Your task to perform on an android device: open app "Google Pay: Save, Pay, Manage" Image 0: 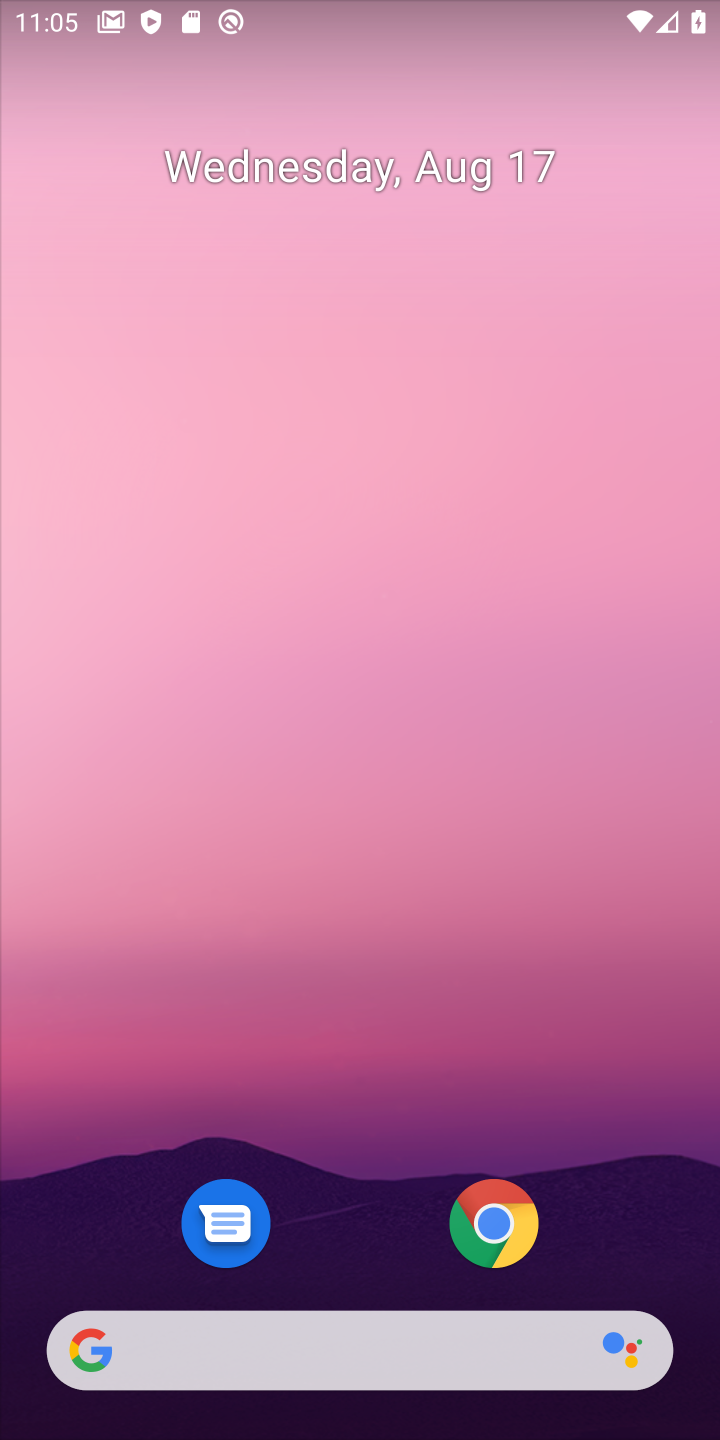
Step 0: drag from (419, 1203) to (353, 62)
Your task to perform on an android device: open app "Google Pay: Save, Pay, Manage" Image 1: 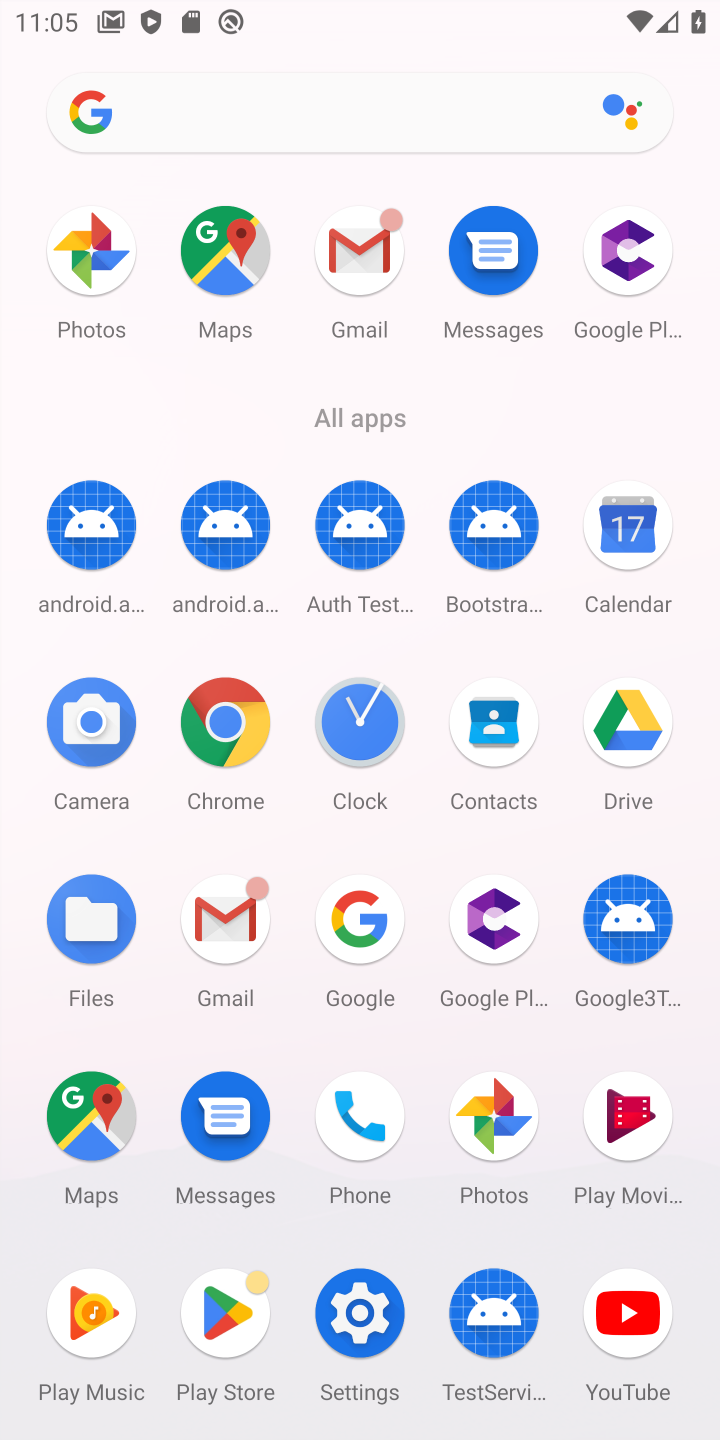
Step 1: click (235, 1295)
Your task to perform on an android device: open app "Google Pay: Save, Pay, Manage" Image 2: 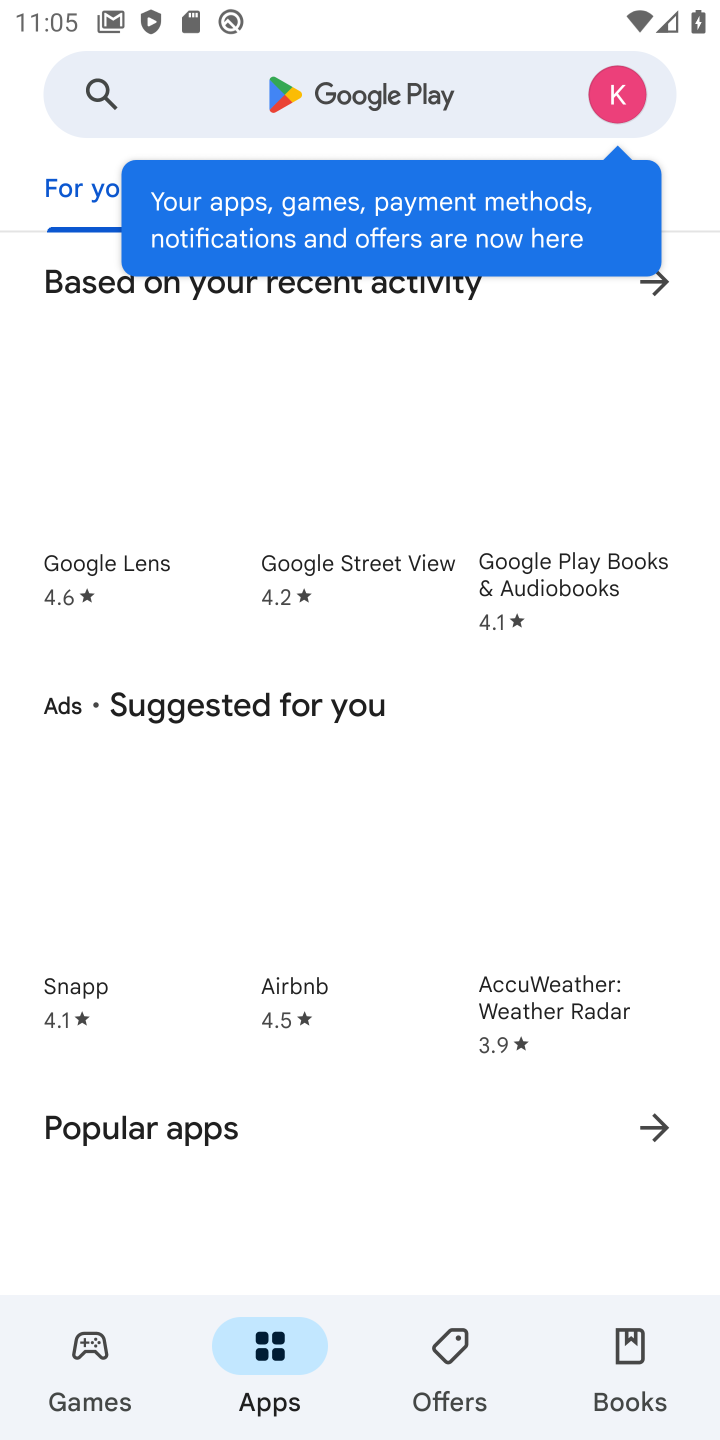
Step 2: click (475, 81)
Your task to perform on an android device: open app "Google Pay: Save, Pay, Manage" Image 3: 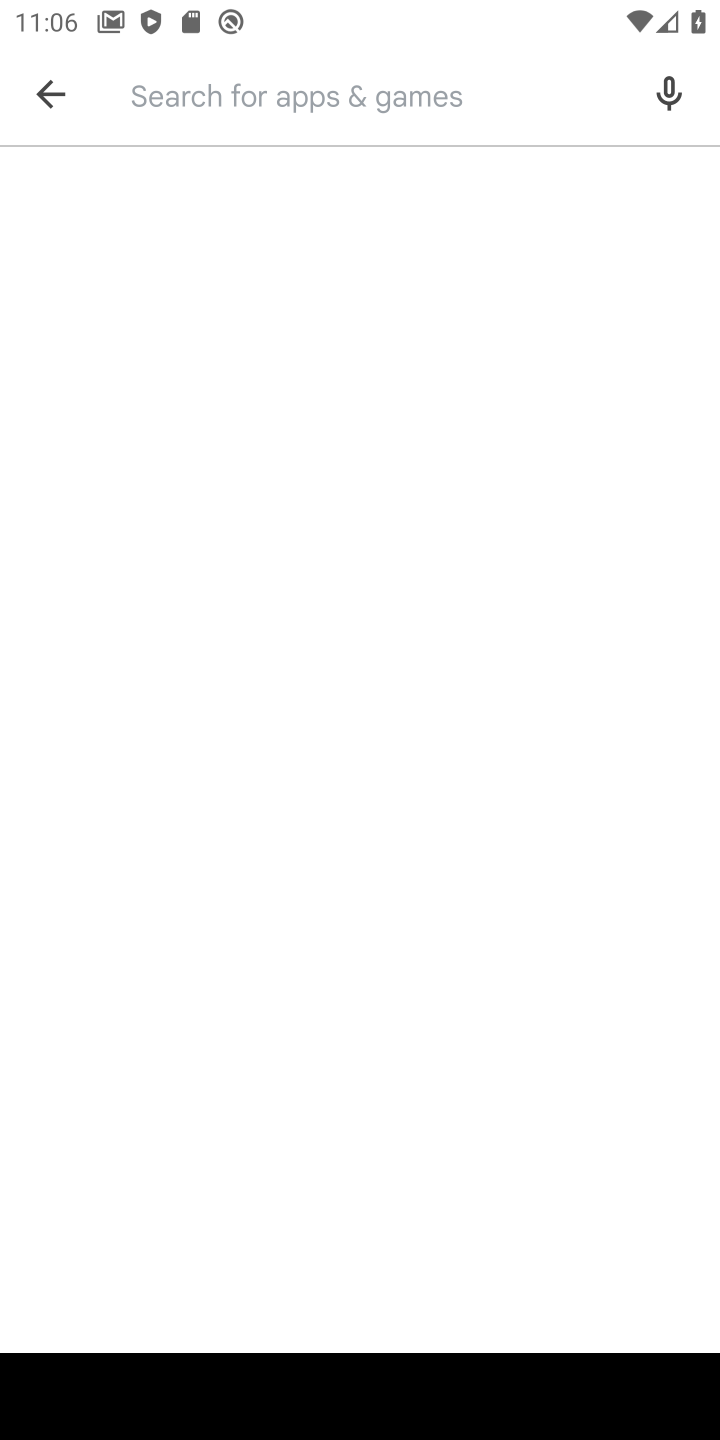
Step 3: type "Google Pay: Save, Pay, Manage"
Your task to perform on an android device: open app "Google Pay: Save, Pay, Manage" Image 4: 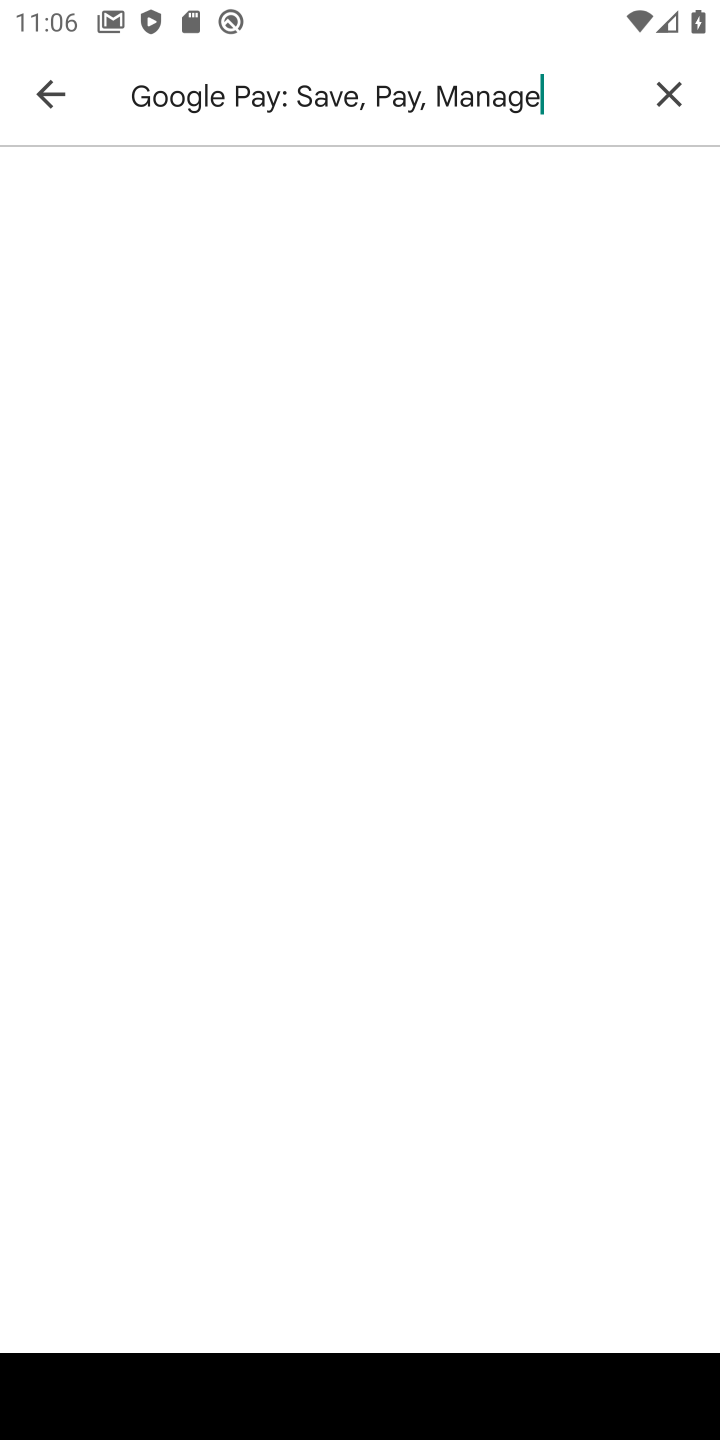
Step 4: type ""
Your task to perform on an android device: open app "Google Pay: Save, Pay, Manage" Image 5: 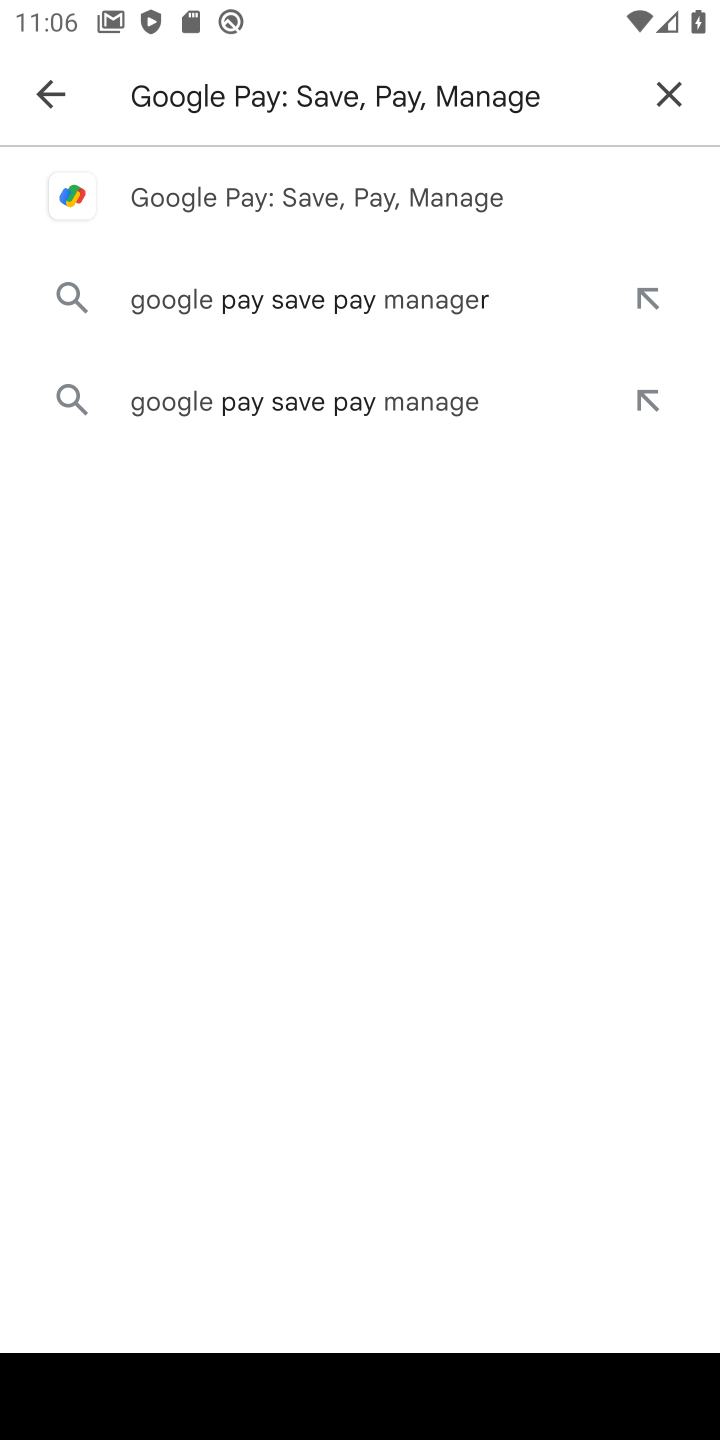
Step 5: click (362, 195)
Your task to perform on an android device: open app "Google Pay: Save, Pay, Manage" Image 6: 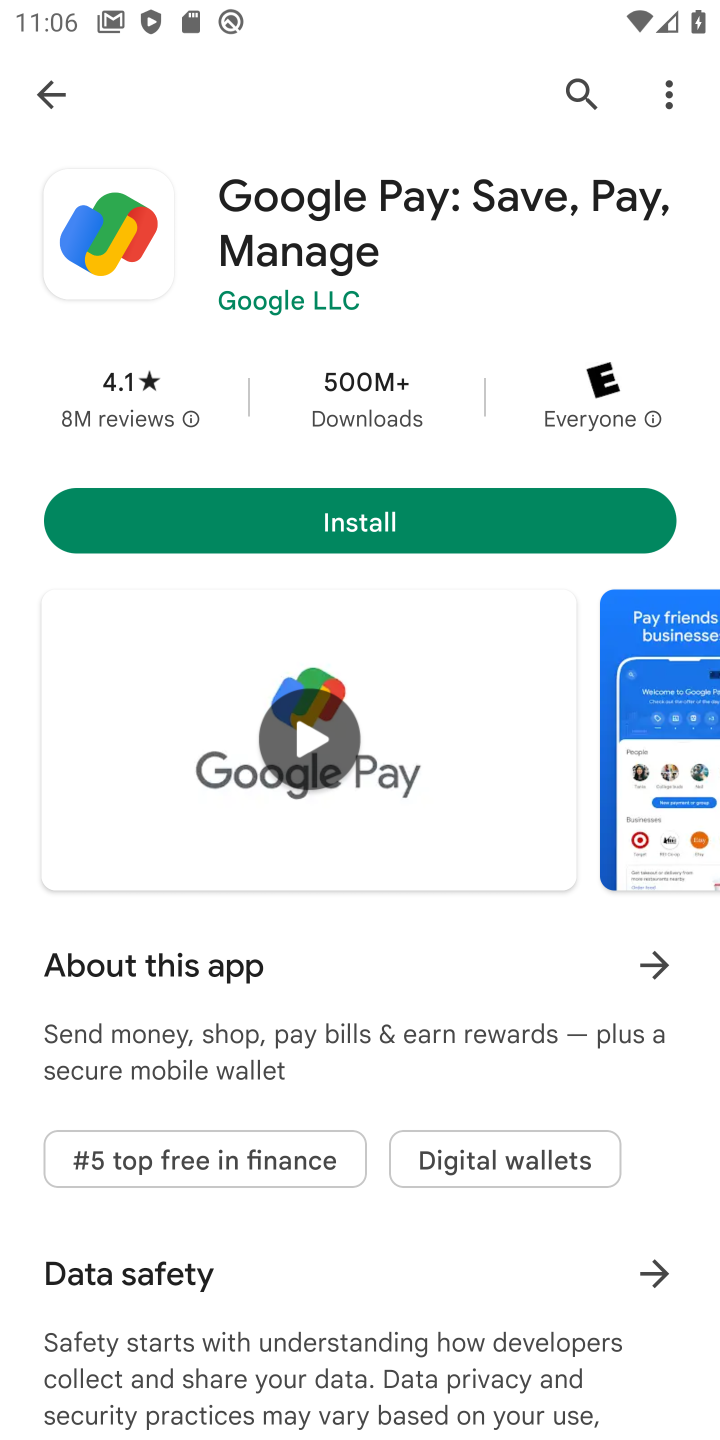
Step 6: task complete